Your task to perform on an android device: empty trash in google photos Image 0: 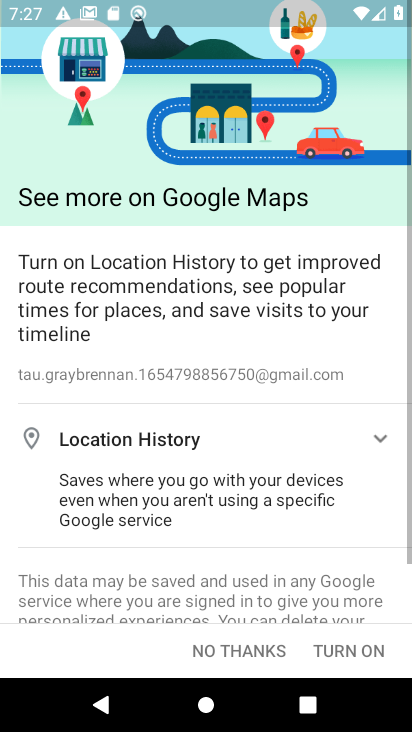
Step 0: press home button
Your task to perform on an android device: empty trash in google photos Image 1: 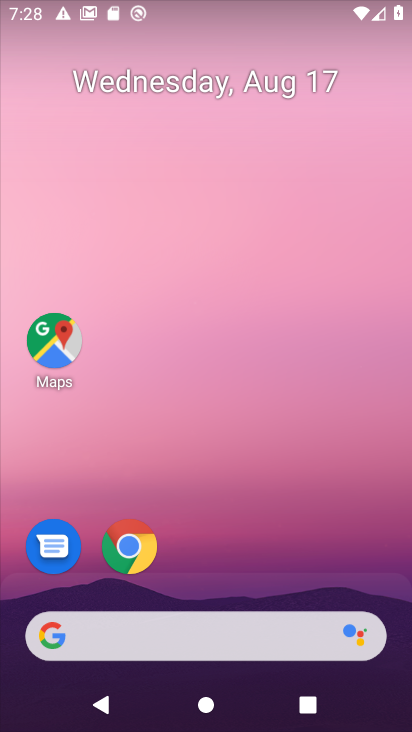
Step 1: drag from (292, 605) to (300, 196)
Your task to perform on an android device: empty trash in google photos Image 2: 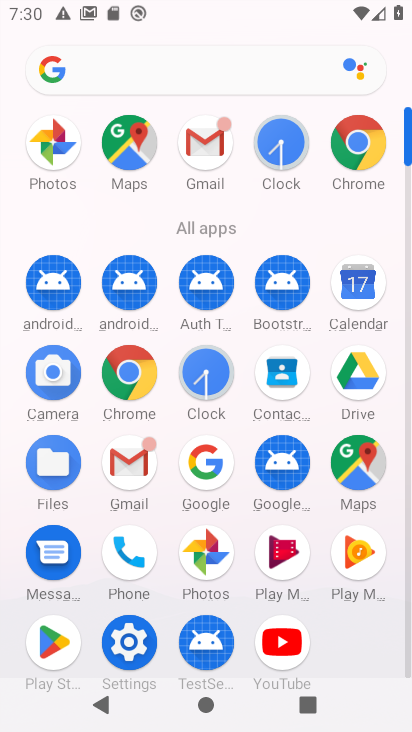
Step 2: click (200, 540)
Your task to perform on an android device: empty trash in google photos Image 3: 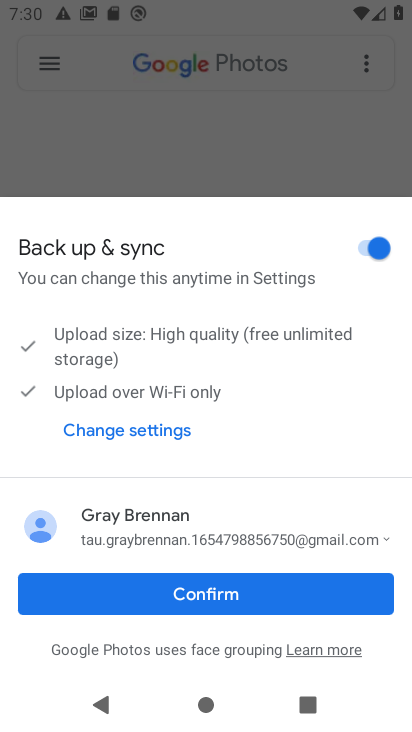
Step 3: click (230, 585)
Your task to perform on an android device: empty trash in google photos Image 4: 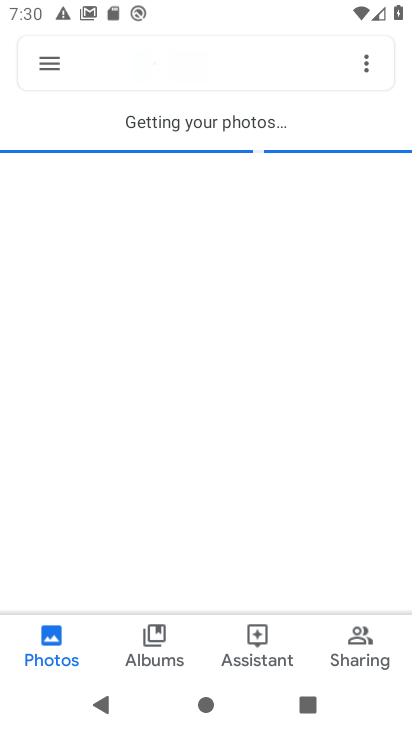
Step 4: click (53, 71)
Your task to perform on an android device: empty trash in google photos Image 5: 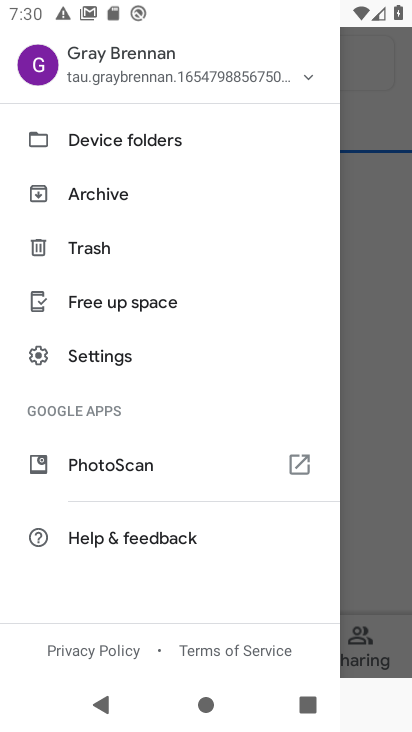
Step 5: click (104, 253)
Your task to perform on an android device: empty trash in google photos Image 6: 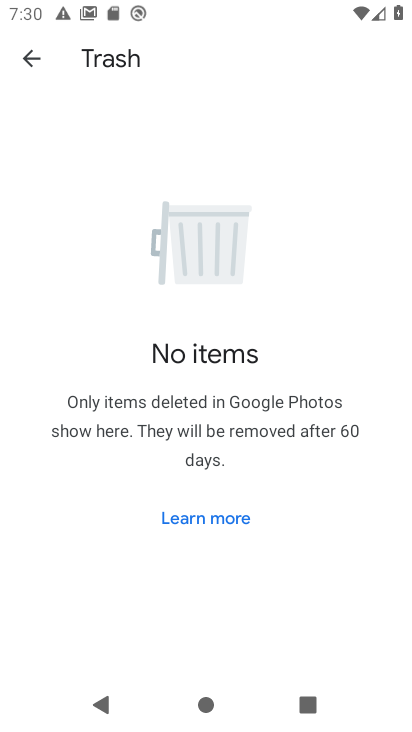
Step 6: task complete